Your task to perform on an android device: Open Google Chrome and open the bookmarks view Image 0: 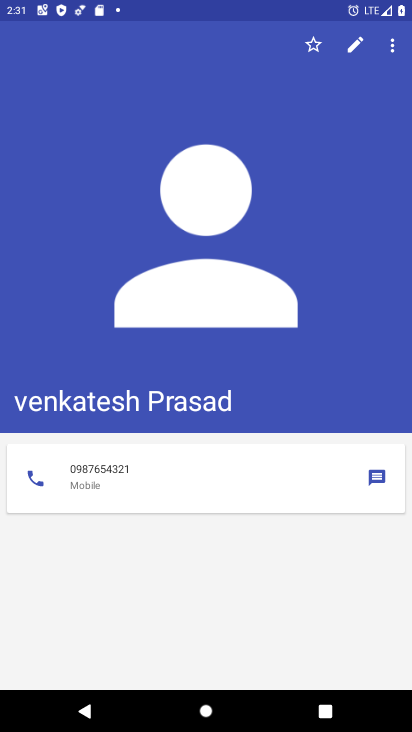
Step 0: press home button
Your task to perform on an android device: Open Google Chrome and open the bookmarks view Image 1: 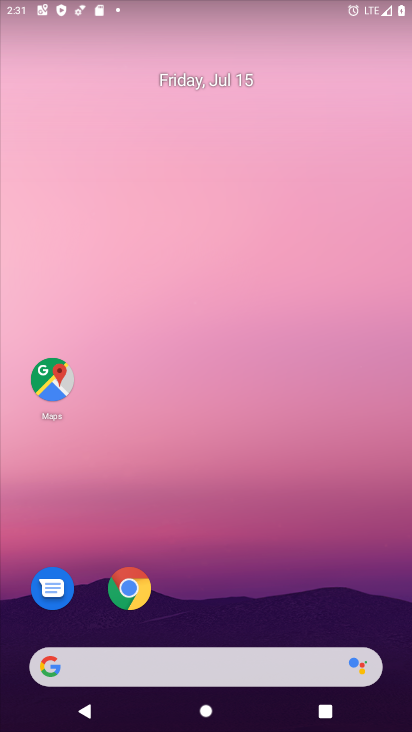
Step 1: click (130, 590)
Your task to perform on an android device: Open Google Chrome and open the bookmarks view Image 2: 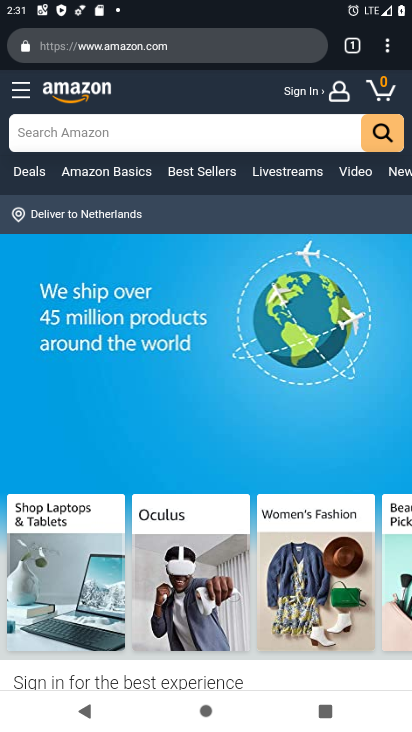
Step 2: click (390, 50)
Your task to perform on an android device: Open Google Chrome and open the bookmarks view Image 3: 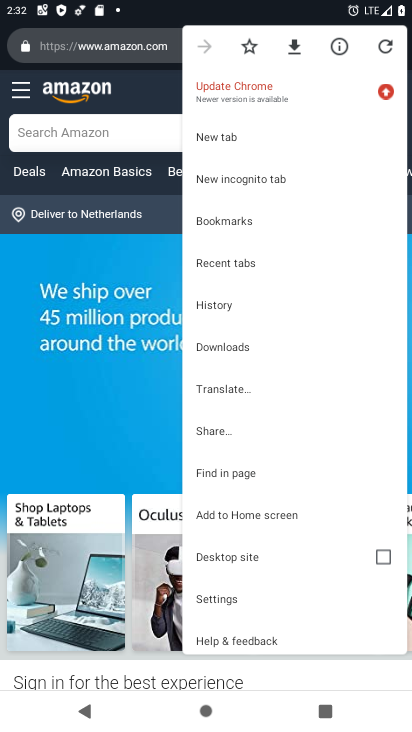
Step 3: click (230, 218)
Your task to perform on an android device: Open Google Chrome and open the bookmarks view Image 4: 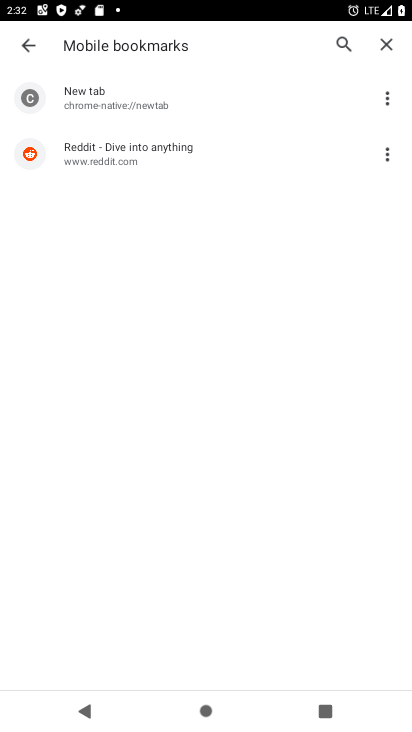
Step 4: task complete